Your task to perform on an android device: allow notifications from all sites in the chrome app Image 0: 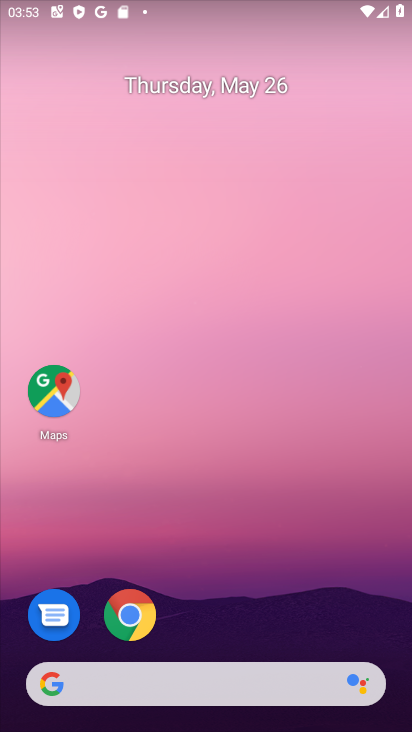
Step 0: drag from (187, 629) to (198, 12)
Your task to perform on an android device: allow notifications from all sites in the chrome app Image 1: 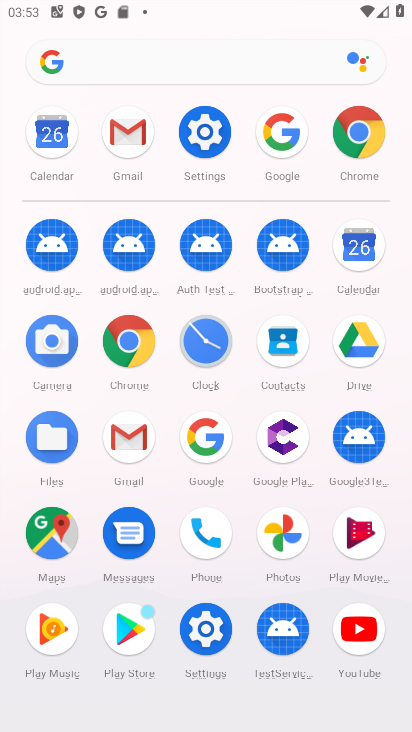
Step 1: click (358, 138)
Your task to perform on an android device: allow notifications from all sites in the chrome app Image 2: 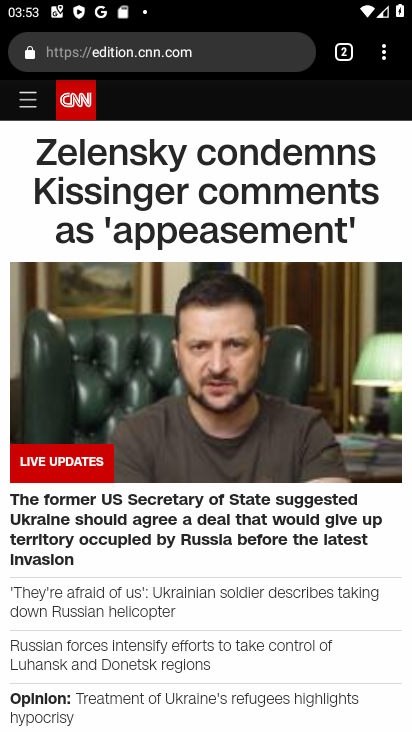
Step 2: click (384, 56)
Your task to perform on an android device: allow notifications from all sites in the chrome app Image 3: 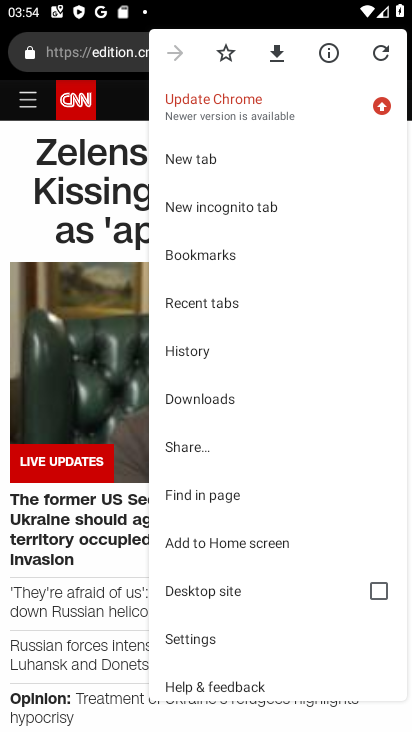
Step 3: click (200, 636)
Your task to perform on an android device: allow notifications from all sites in the chrome app Image 4: 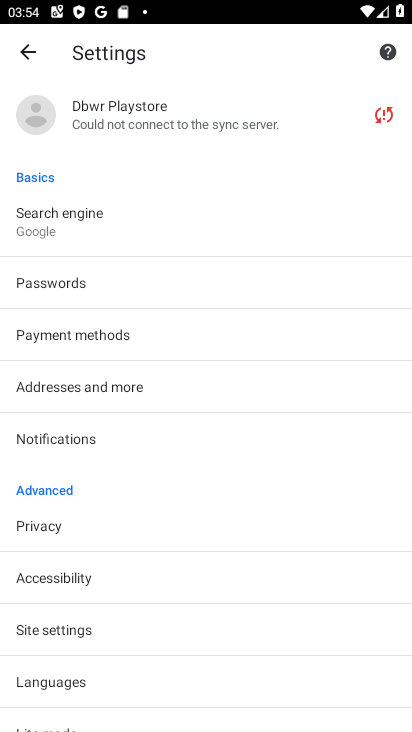
Step 4: drag from (68, 654) to (135, 396)
Your task to perform on an android device: allow notifications from all sites in the chrome app Image 5: 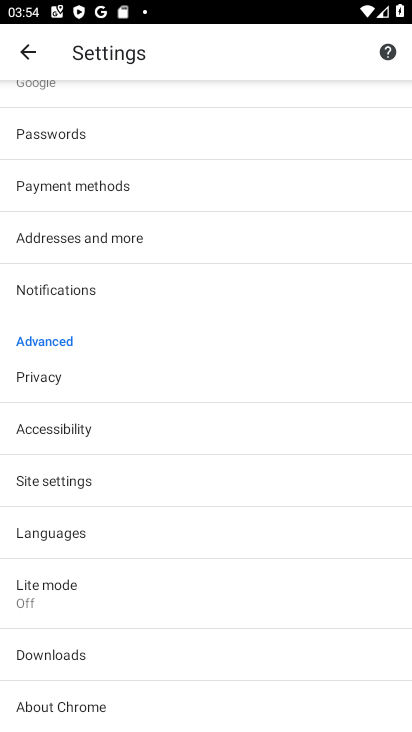
Step 5: click (52, 477)
Your task to perform on an android device: allow notifications from all sites in the chrome app Image 6: 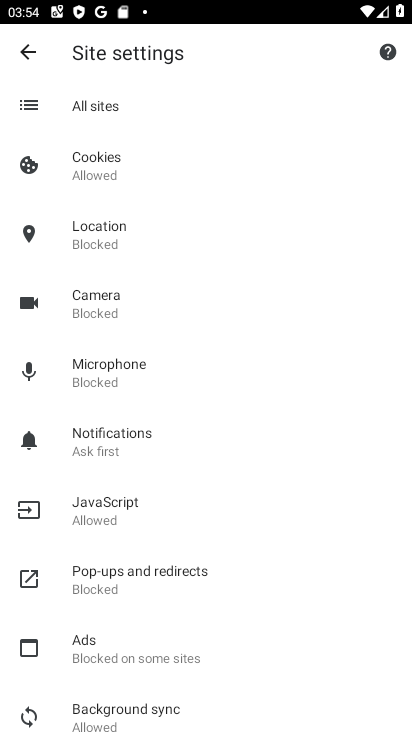
Step 6: click (100, 108)
Your task to perform on an android device: allow notifications from all sites in the chrome app Image 7: 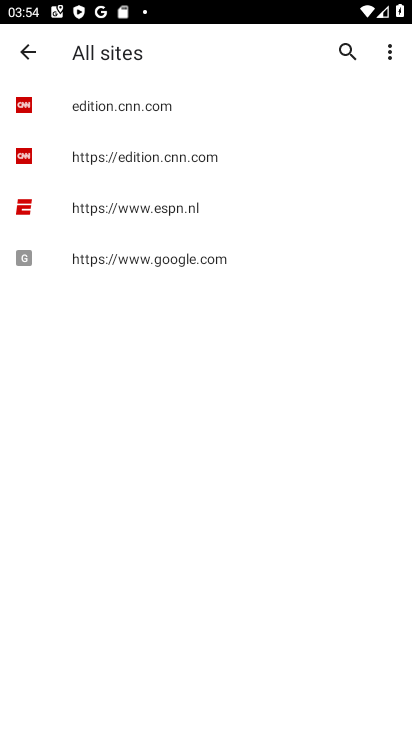
Step 7: click (116, 265)
Your task to perform on an android device: allow notifications from all sites in the chrome app Image 8: 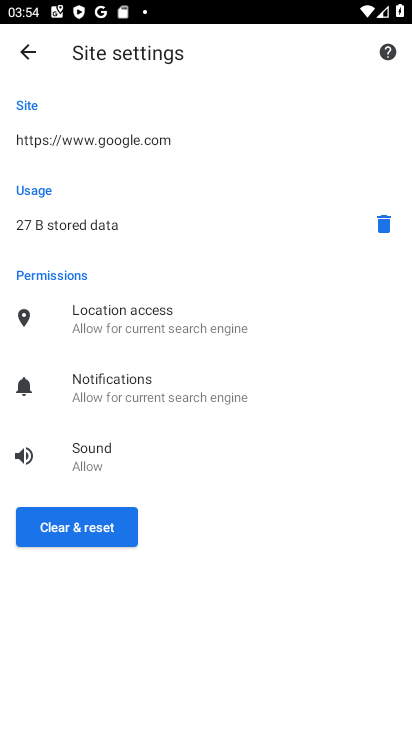
Step 8: click (102, 411)
Your task to perform on an android device: allow notifications from all sites in the chrome app Image 9: 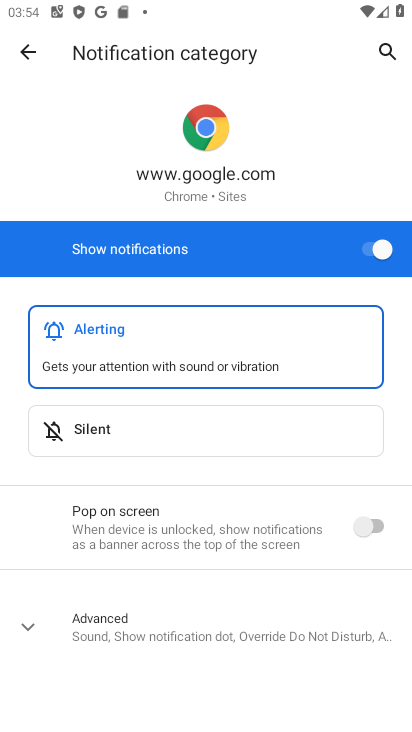
Step 9: task complete